Your task to perform on an android device: change your default location settings in chrome Image 0: 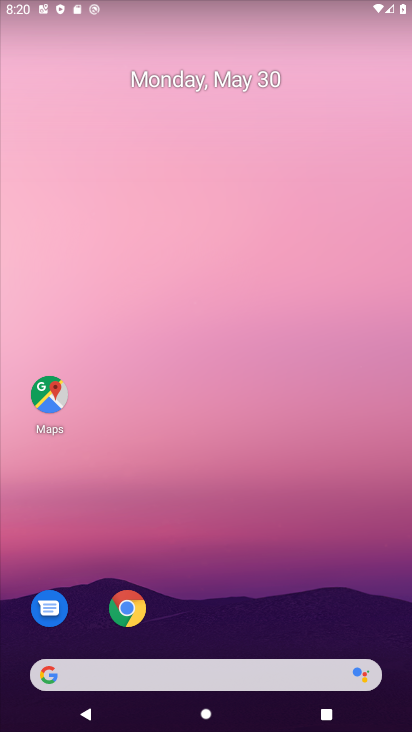
Step 0: click (123, 609)
Your task to perform on an android device: change your default location settings in chrome Image 1: 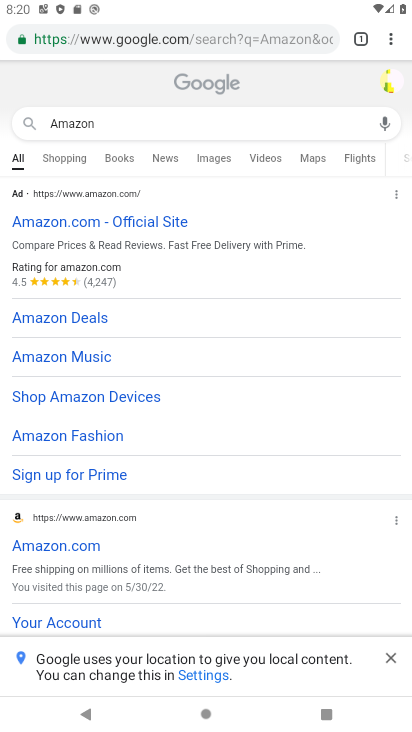
Step 1: drag from (301, 595) to (262, 353)
Your task to perform on an android device: change your default location settings in chrome Image 2: 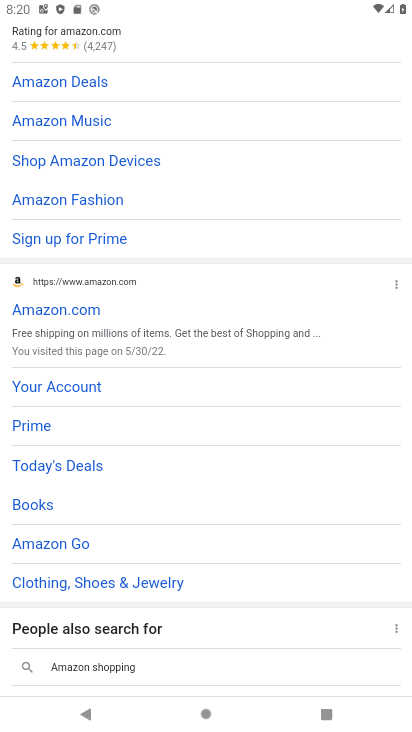
Step 2: drag from (223, 205) to (285, 606)
Your task to perform on an android device: change your default location settings in chrome Image 3: 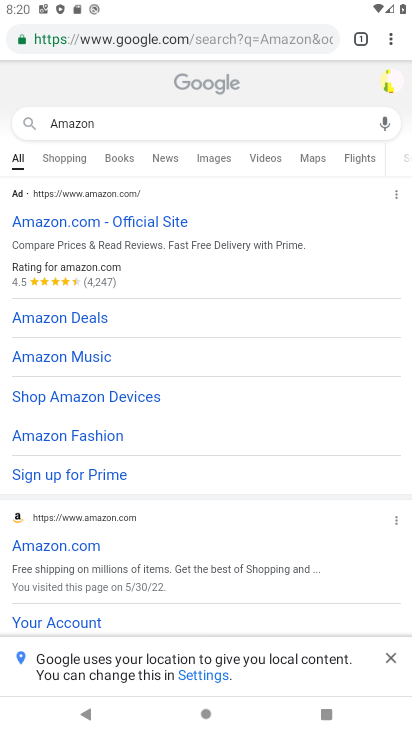
Step 3: click (389, 36)
Your task to perform on an android device: change your default location settings in chrome Image 4: 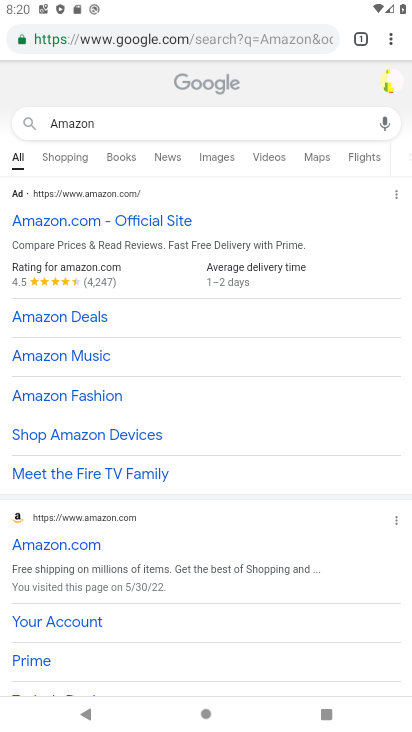
Step 4: click (391, 33)
Your task to perform on an android device: change your default location settings in chrome Image 5: 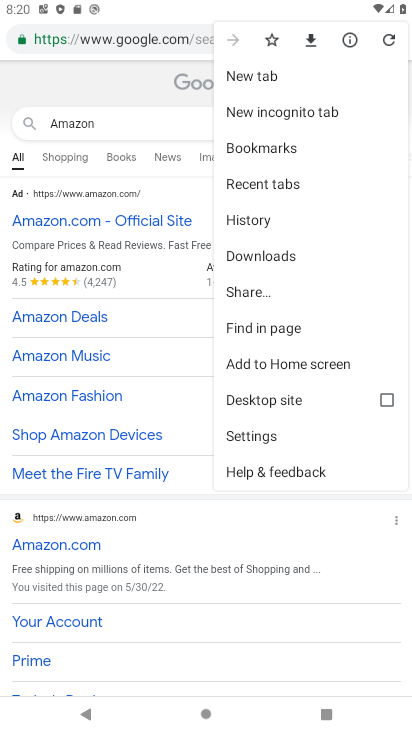
Step 5: click (259, 434)
Your task to perform on an android device: change your default location settings in chrome Image 6: 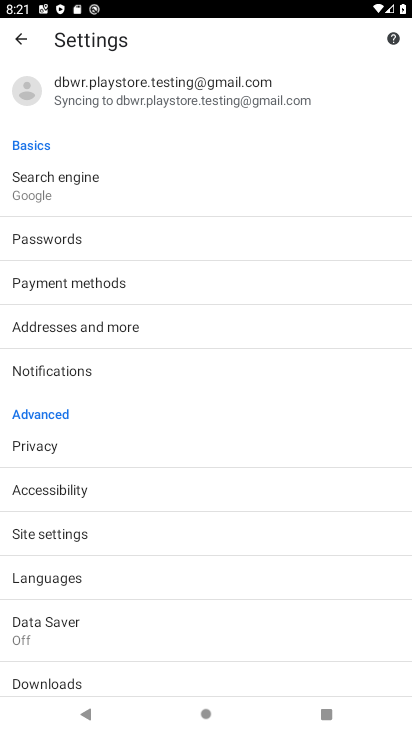
Step 6: click (55, 548)
Your task to perform on an android device: change your default location settings in chrome Image 7: 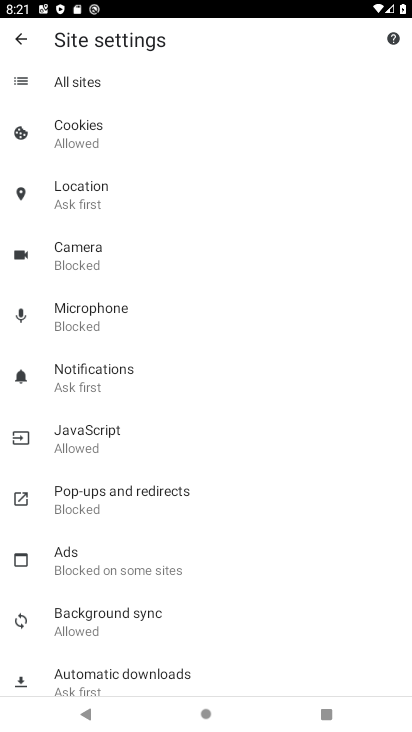
Step 7: click (83, 195)
Your task to perform on an android device: change your default location settings in chrome Image 8: 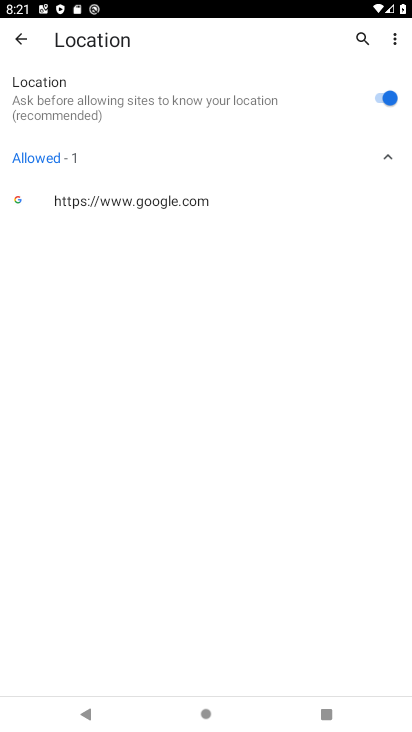
Step 8: click (373, 99)
Your task to perform on an android device: change your default location settings in chrome Image 9: 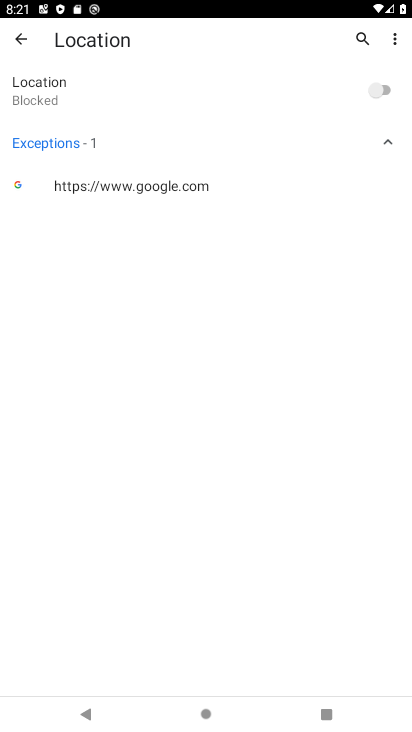
Step 9: task complete